Your task to perform on an android device: Search for "usb-c to usb-b" on bestbuy.com, select the first entry, add it to the cart, then select checkout. Image 0: 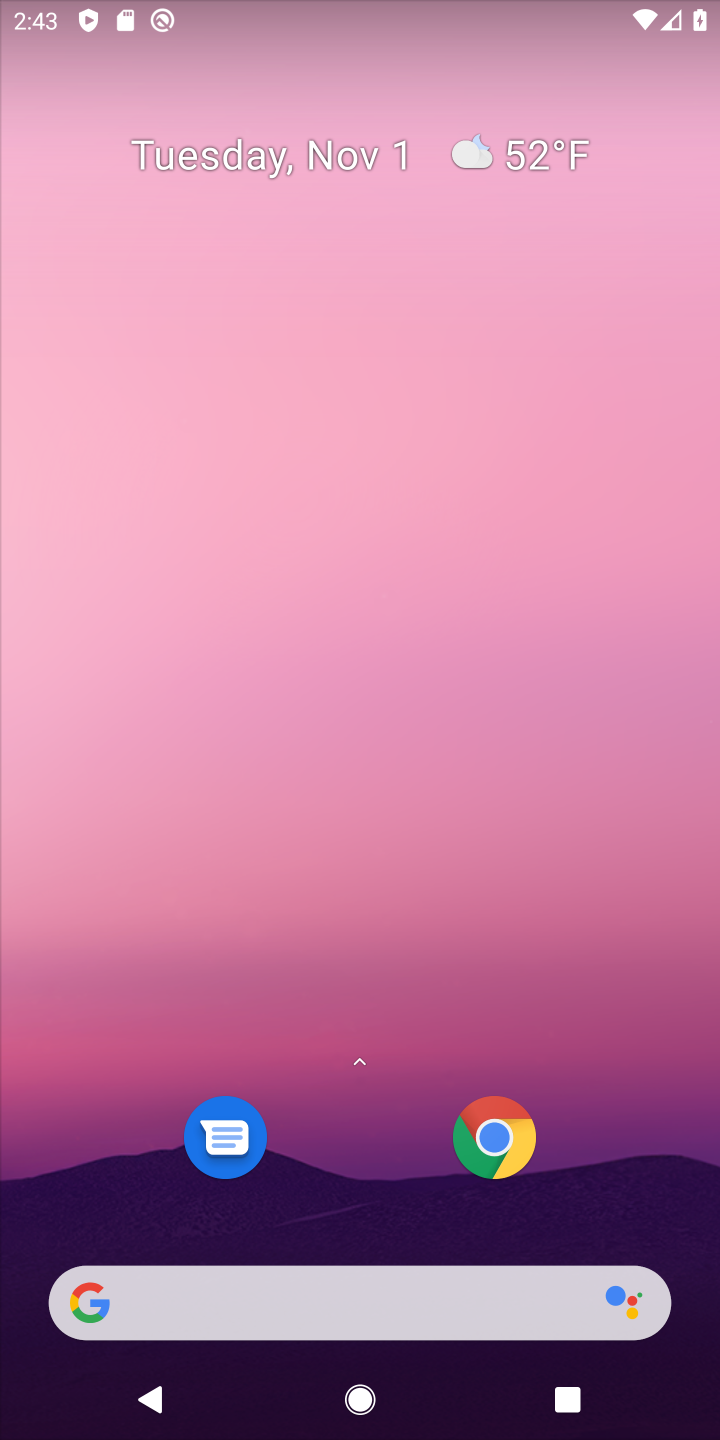
Step 0: click (357, 1318)
Your task to perform on an android device: Search for "usb-c to usb-b" on bestbuy.com, select the first entry, add it to the cart, then select checkout. Image 1: 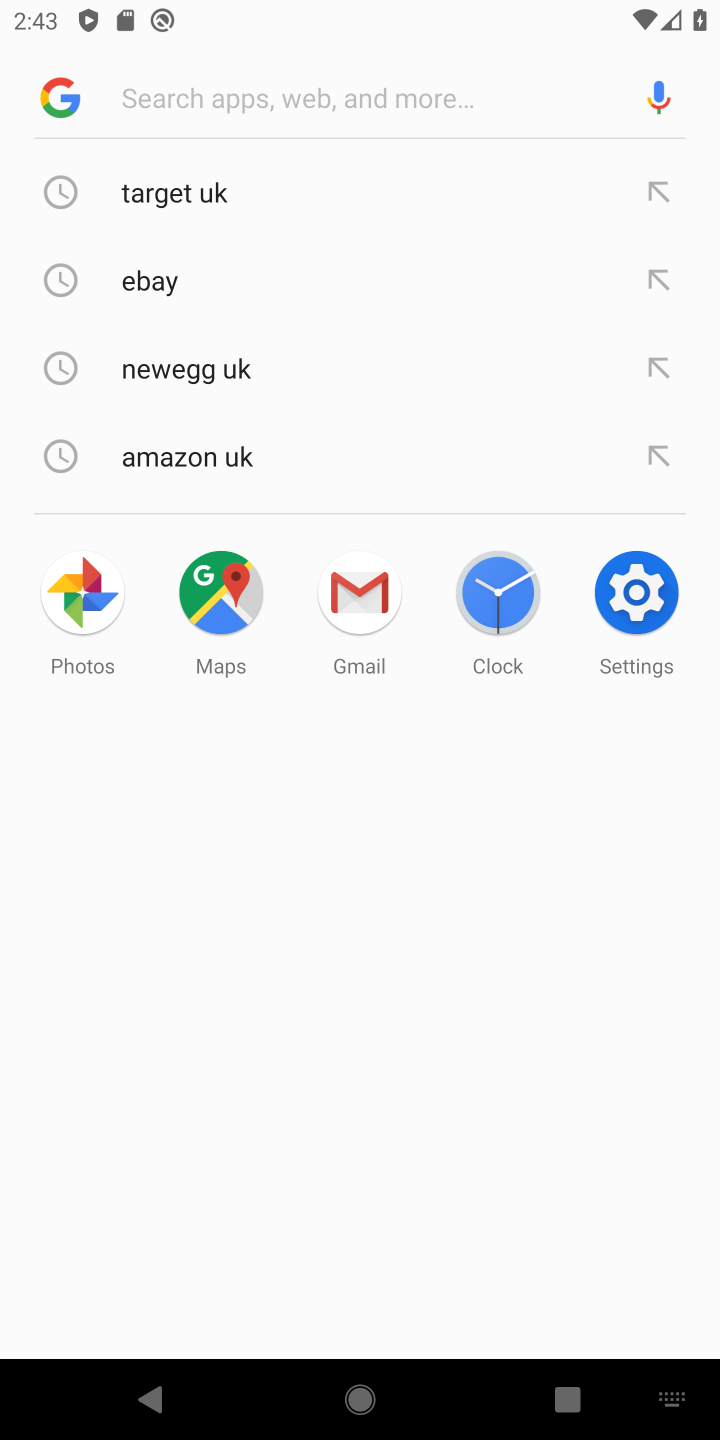
Step 1: type "bestbuy"
Your task to perform on an android device: Search for "usb-c to usb-b" on bestbuy.com, select the first entry, add it to the cart, then select checkout. Image 2: 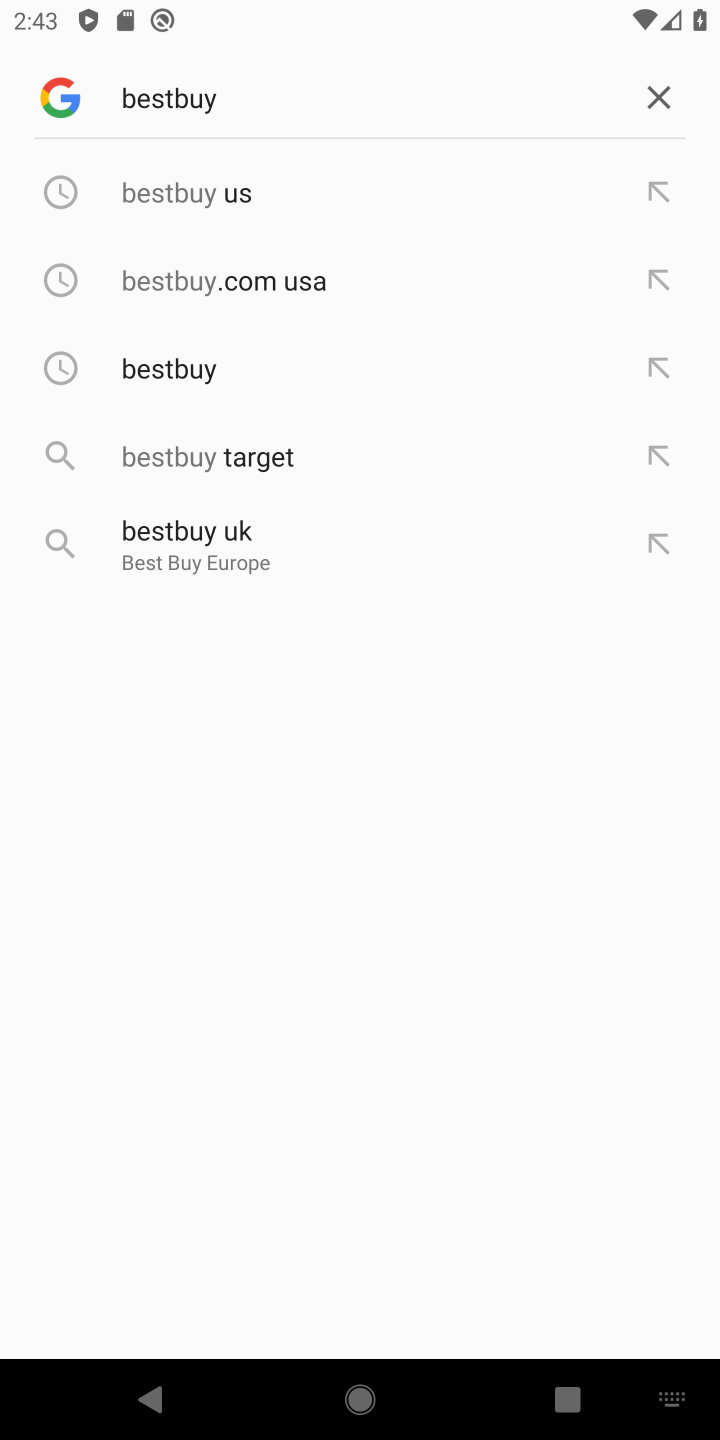
Step 2: click (141, 192)
Your task to perform on an android device: Search for "usb-c to usb-b" on bestbuy.com, select the first entry, add it to the cart, then select checkout. Image 3: 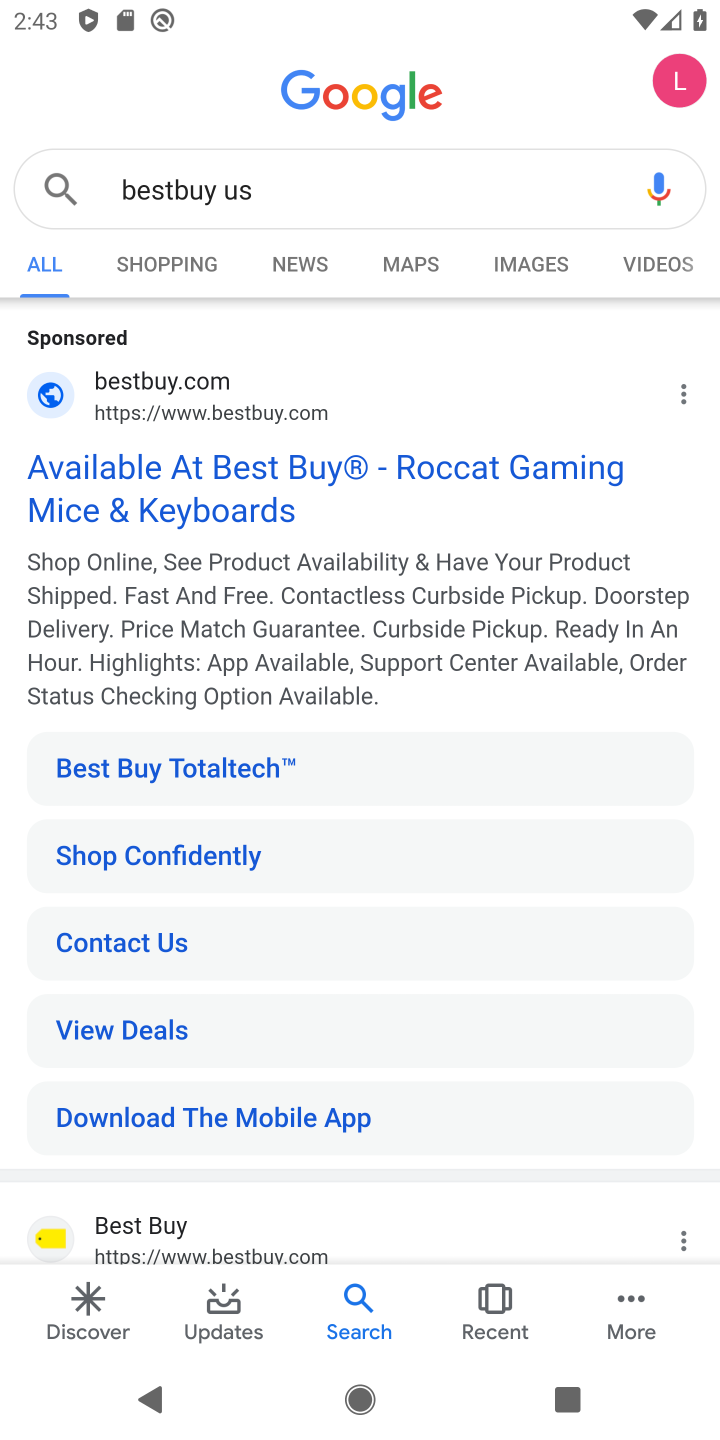
Step 3: click (190, 468)
Your task to perform on an android device: Search for "usb-c to usb-b" on bestbuy.com, select the first entry, add it to the cart, then select checkout. Image 4: 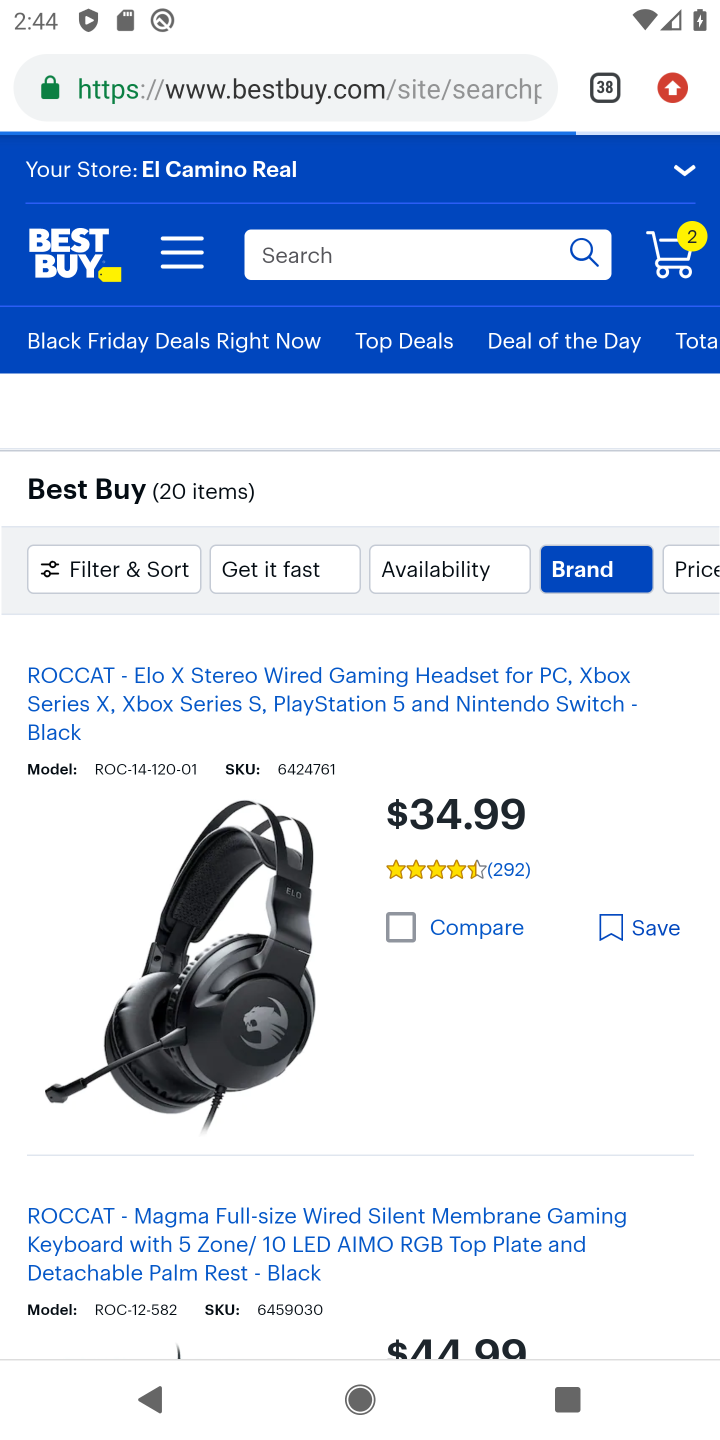
Step 4: click (446, 269)
Your task to perform on an android device: Search for "usb-c to usb-b" on bestbuy.com, select the first entry, add it to the cart, then select checkout. Image 5: 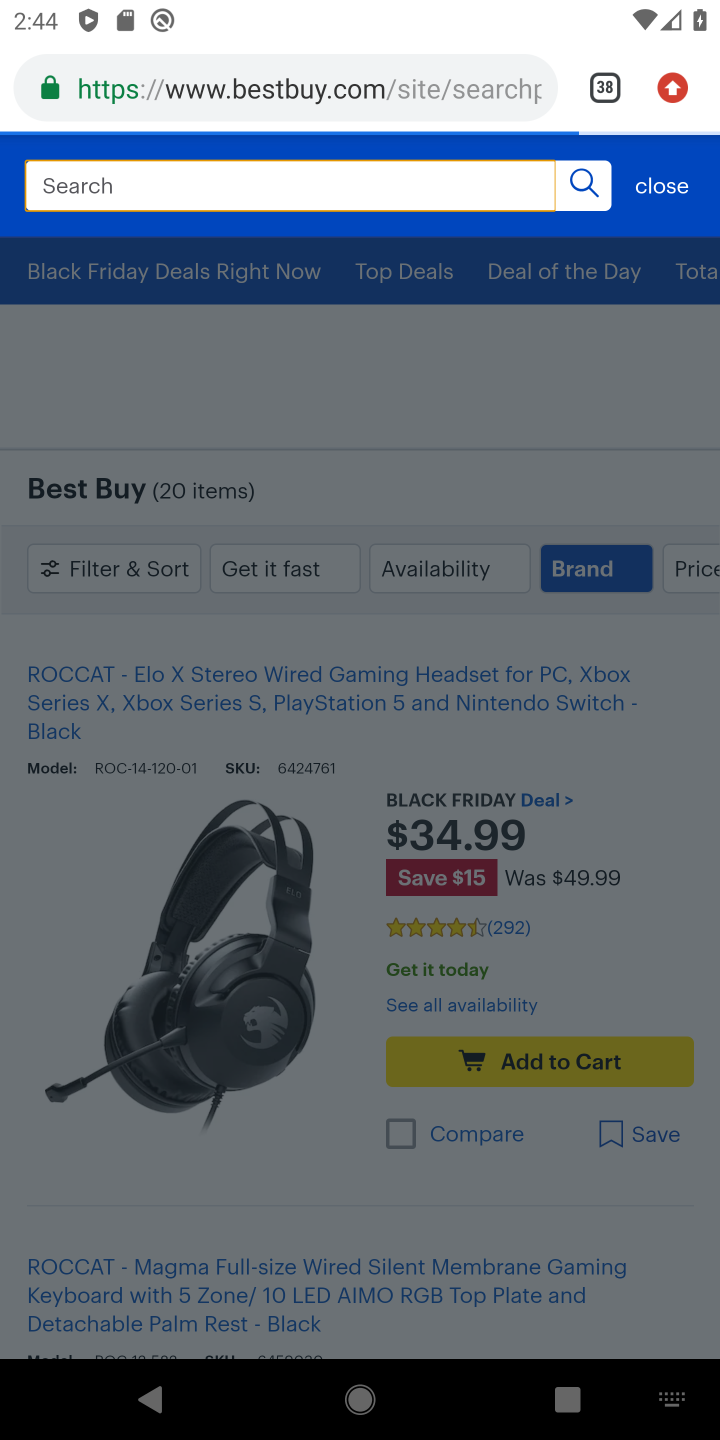
Step 5: type "usb-c to usb-a"
Your task to perform on an android device: Search for "usb-c to usb-b" on bestbuy.com, select the first entry, add it to the cart, then select checkout. Image 6: 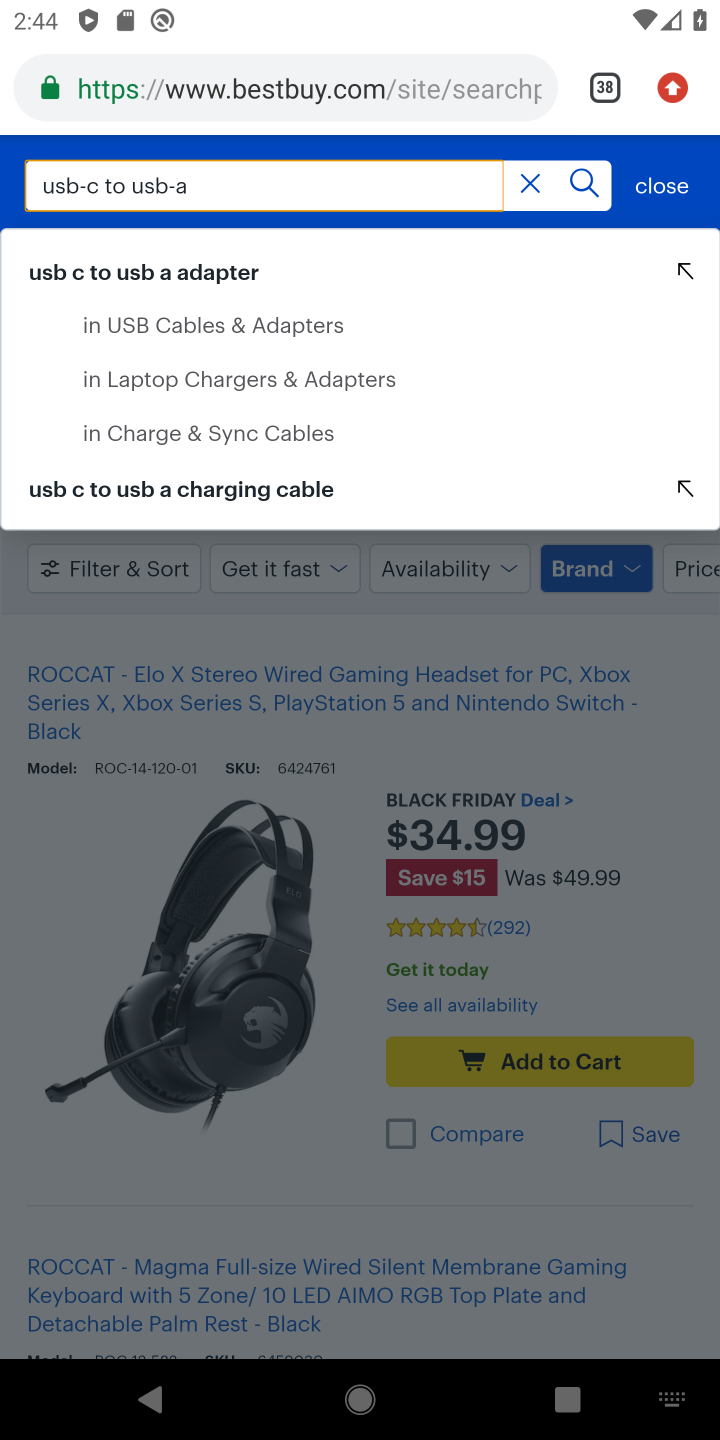
Step 6: click (224, 349)
Your task to perform on an android device: Search for "usb-c to usb-b" on bestbuy.com, select the first entry, add it to the cart, then select checkout. Image 7: 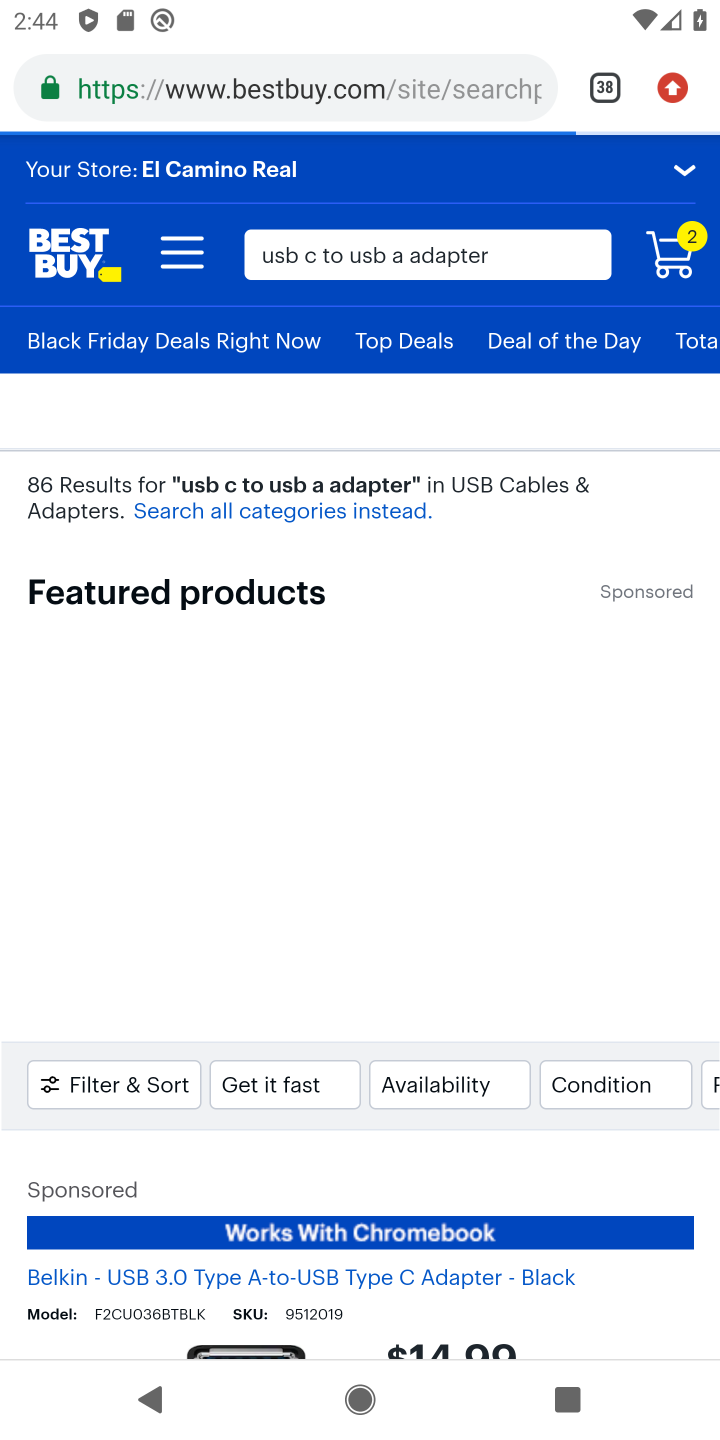
Step 7: drag from (448, 952) to (407, 558)
Your task to perform on an android device: Search for "usb-c to usb-b" on bestbuy.com, select the first entry, add it to the cart, then select checkout. Image 8: 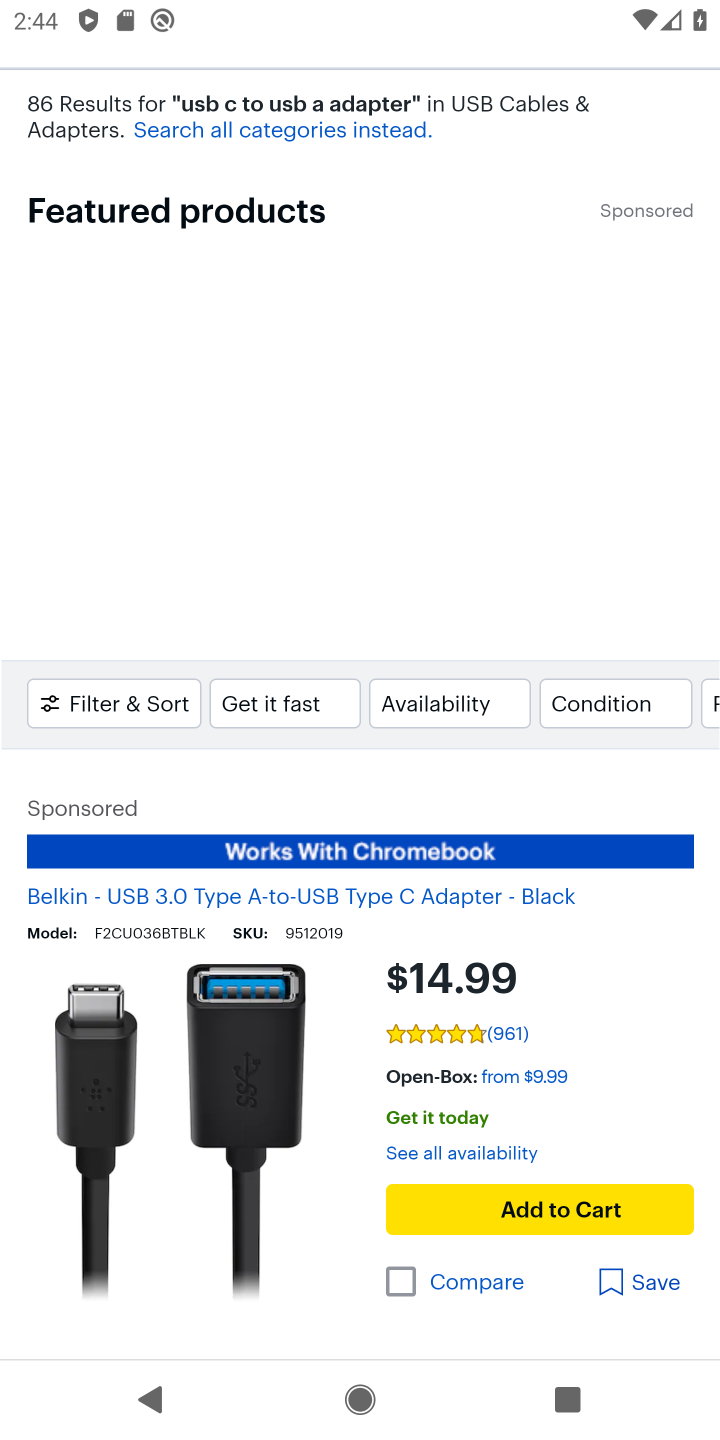
Step 8: click (561, 1296)
Your task to perform on an android device: Search for "usb-c to usb-b" on bestbuy.com, select the first entry, add it to the cart, then select checkout. Image 9: 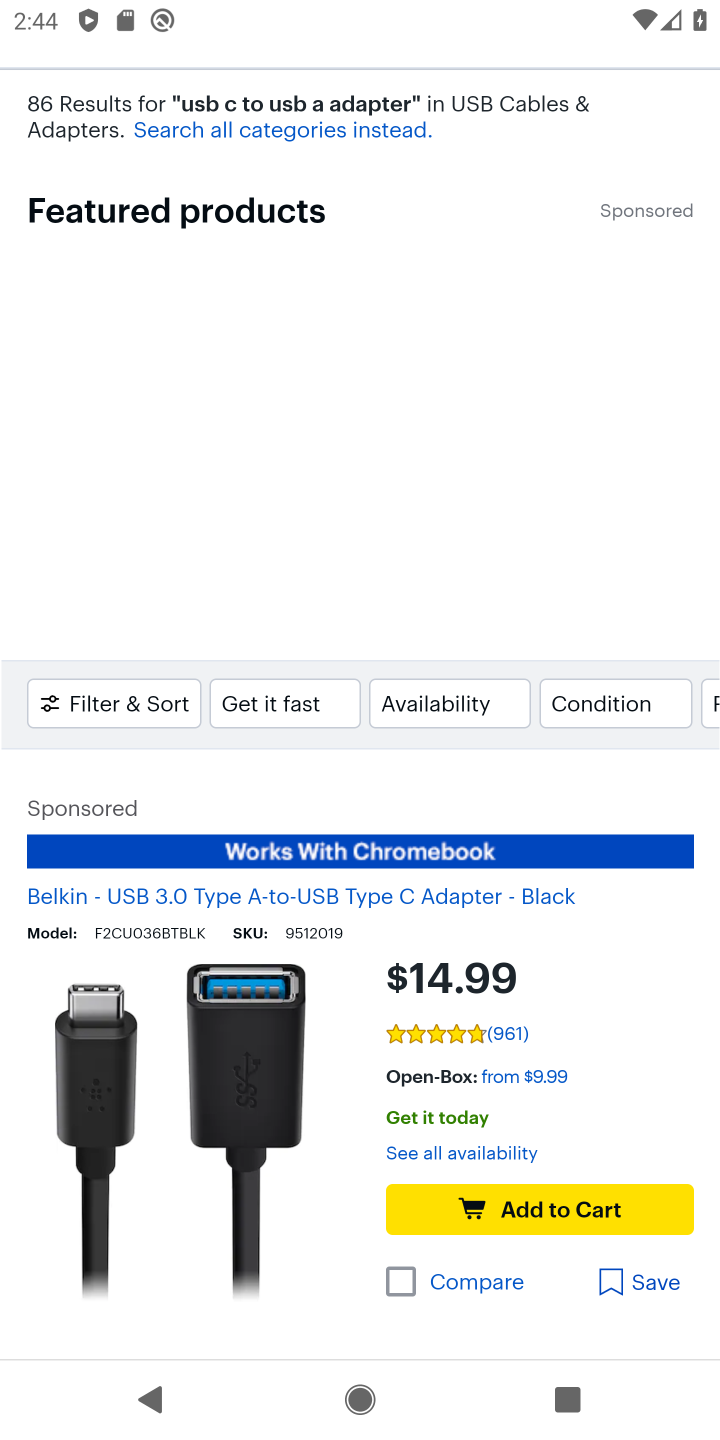
Step 9: task complete